Your task to perform on an android device: toggle airplane mode Image 0: 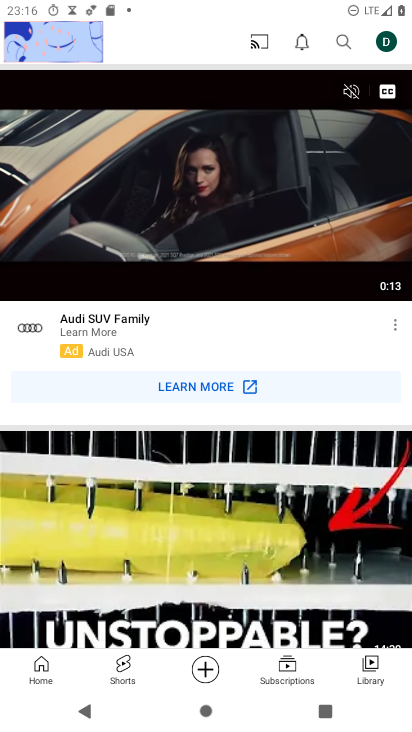
Step 0: press home button
Your task to perform on an android device: toggle airplane mode Image 1: 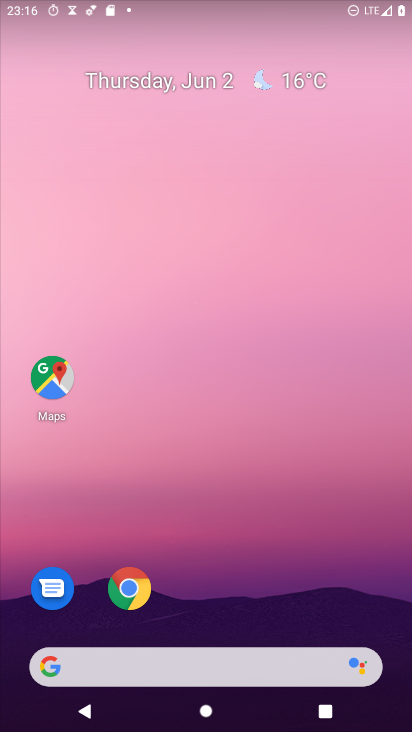
Step 1: drag from (294, 13) to (163, 565)
Your task to perform on an android device: toggle airplane mode Image 2: 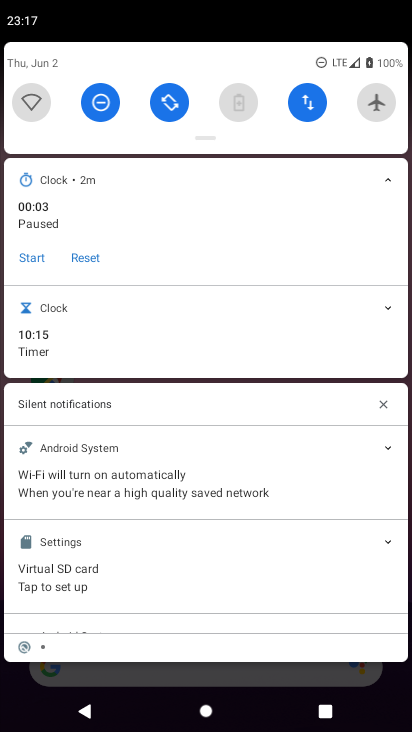
Step 2: click (368, 104)
Your task to perform on an android device: toggle airplane mode Image 3: 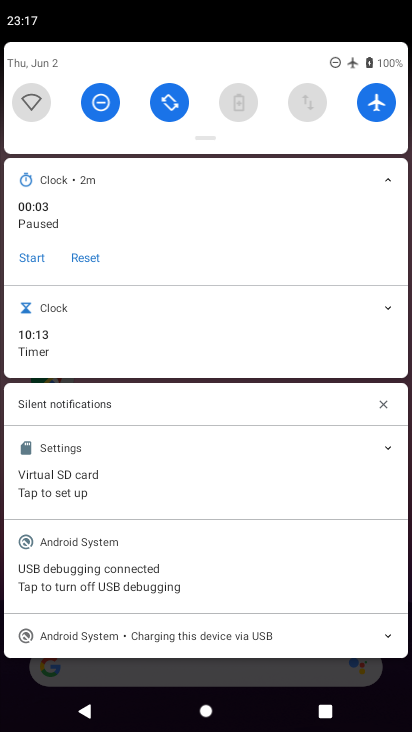
Step 3: task complete